Your task to perform on an android device: turn on the 12-hour format for clock Image 0: 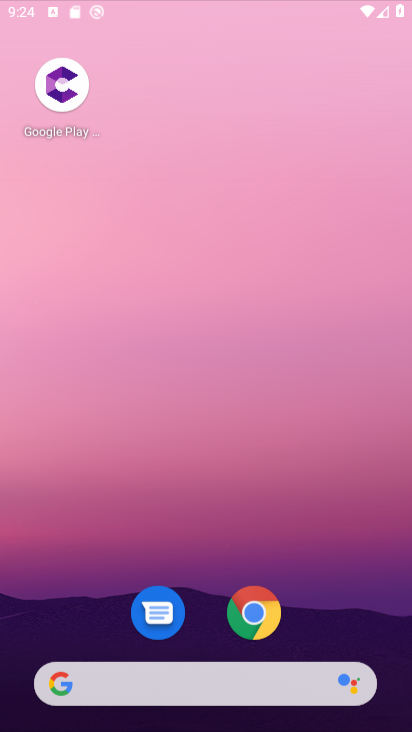
Step 0: drag from (382, 5) to (408, 537)
Your task to perform on an android device: turn on the 12-hour format for clock Image 1: 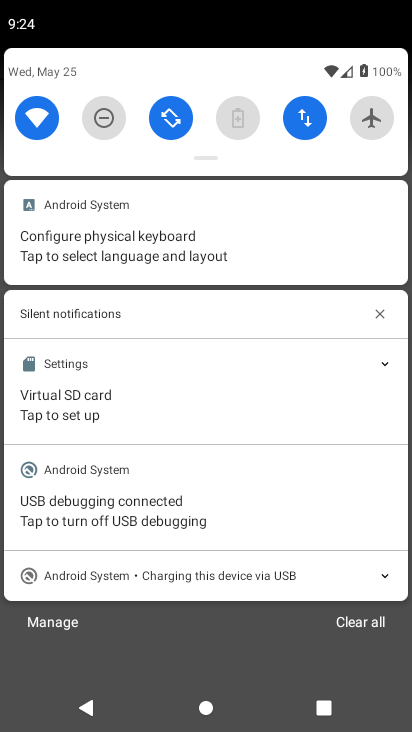
Step 1: press home button
Your task to perform on an android device: turn on the 12-hour format for clock Image 2: 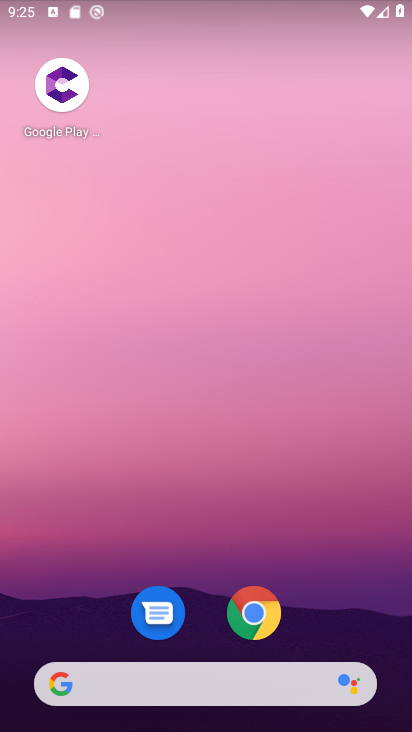
Step 2: drag from (263, 665) to (256, 40)
Your task to perform on an android device: turn on the 12-hour format for clock Image 3: 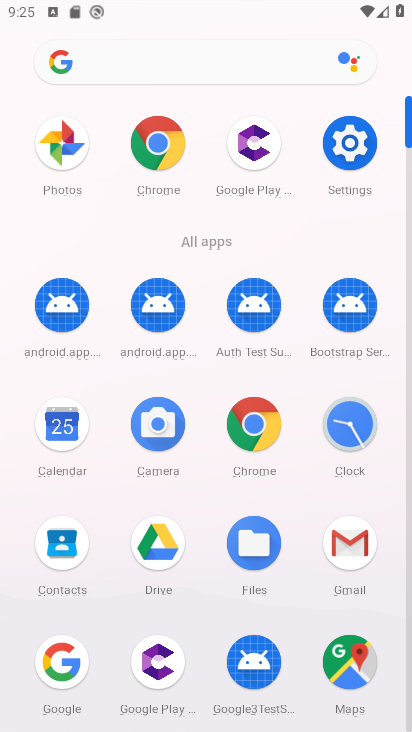
Step 3: click (345, 400)
Your task to perform on an android device: turn on the 12-hour format for clock Image 4: 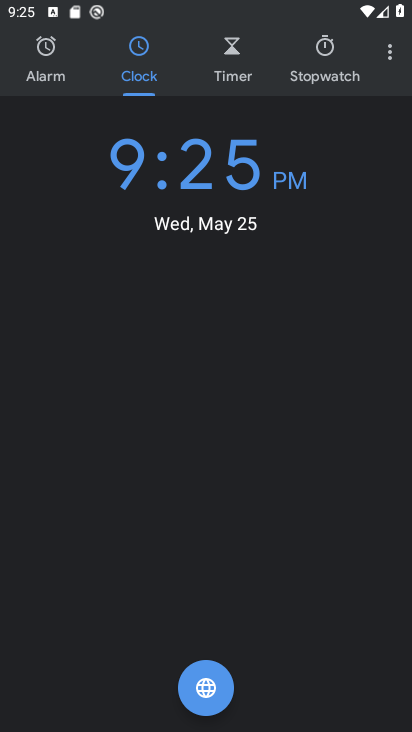
Step 4: drag from (391, 61) to (342, 109)
Your task to perform on an android device: turn on the 12-hour format for clock Image 5: 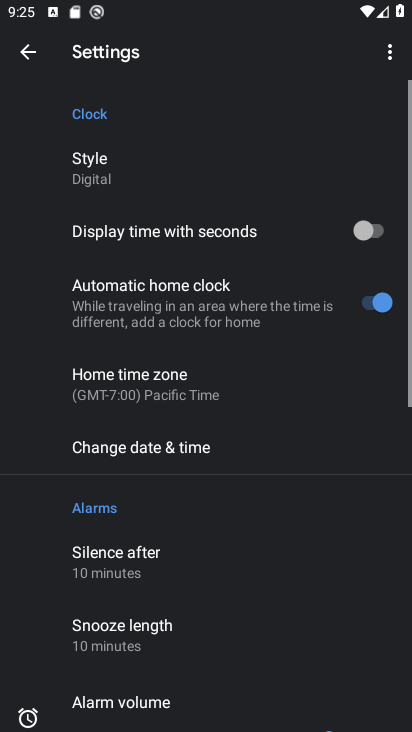
Step 5: click (242, 463)
Your task to perform on an android device: turn on the 12-hour format for clock Image 6: 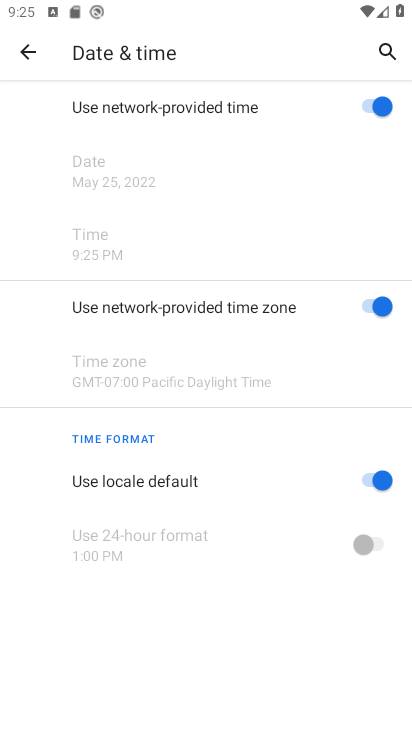
Step 6: click (371, 481)
Your task to perform on an android device: turn on the 12-hour format for clock Image 7: 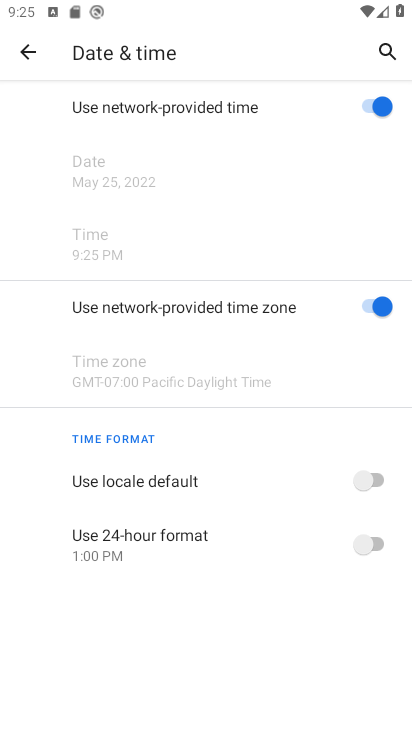
Step 7: task complete